Your task to perform on an android device: turn off picture-in-picture Image 0: 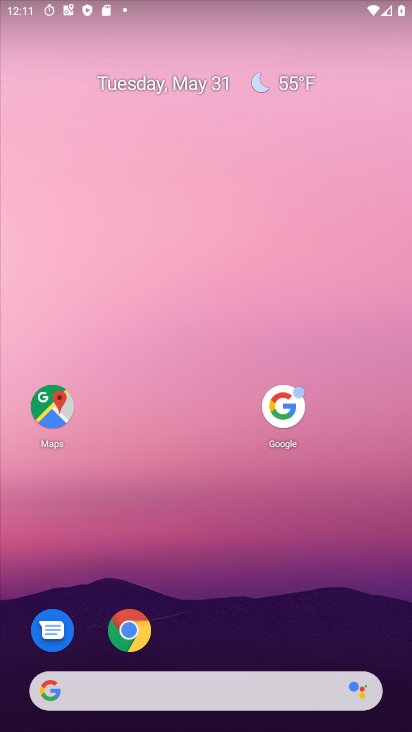
Step 0: click (132, 631)
Your task to perform on an android device: turn off picture-in-picture Image 1: 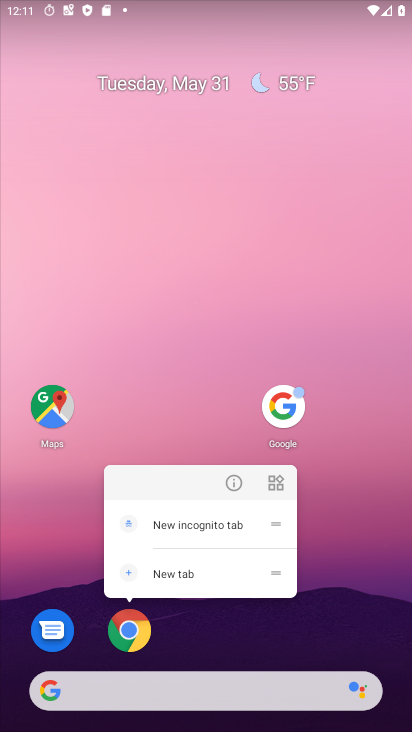
Step 1: click (249, 474)
Your task to perform on an android device: turn off picture-in-picture Image 2: 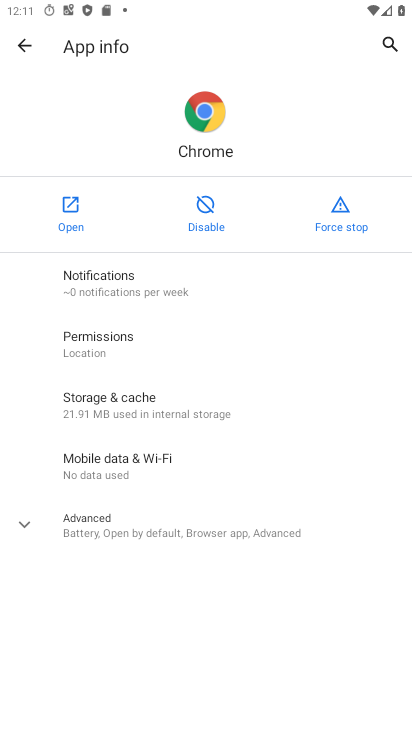
Step 2: click (144, 523)
Your task to perform on an android device: turn off picture-in-picture Image 3: 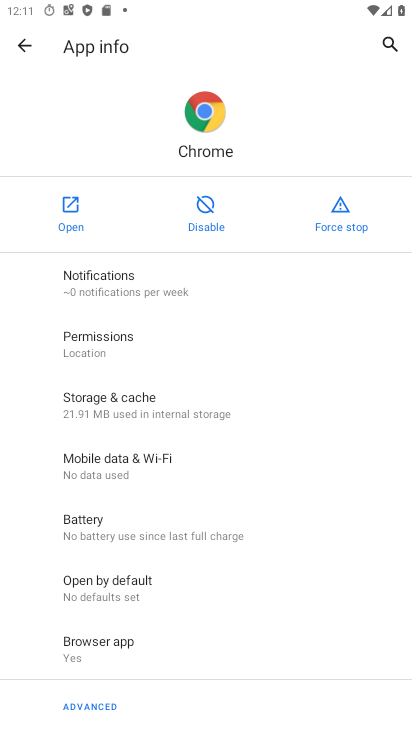
Step 3: drag from (233, 529) to (284, 213)
Your task to perform on an android device: turn off picture-in-picture Image 4: 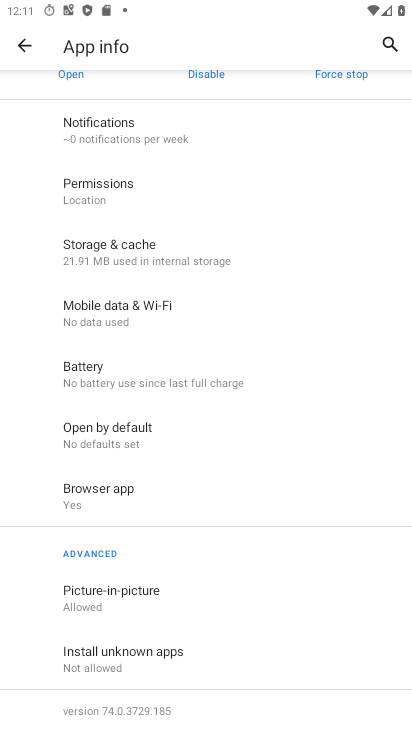
Step 4: click (75, 607)
Your task to perform on an android device: turn off picture-in-picture Image 5: 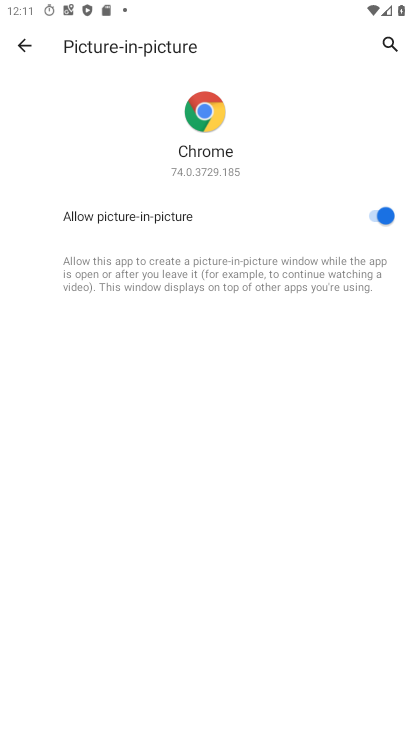
Step 5: click (371, 218)
Your task to perform on an android device: turn off picture-in-picture Image 6: 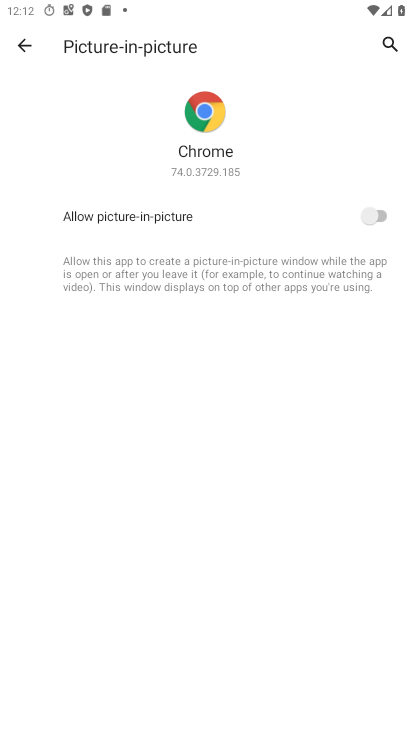
Step 6: task complete